Your task to perform on an android device: open a bookmark in the chrome app Image 0: 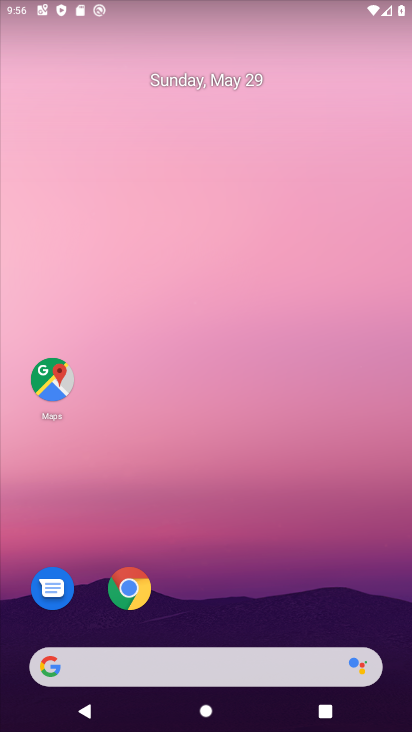
Step 0: drag from (243, 579) to (220, 225)
Your task to perform on an android device: open a bookmark in the chrome app Image 1: 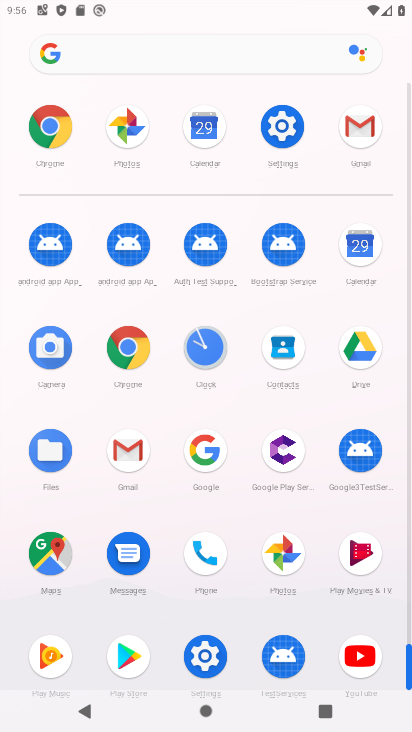
Step 1: click (132, 357)
Your task to perform on an android device: open a bookmark in the chrome app Image 2: 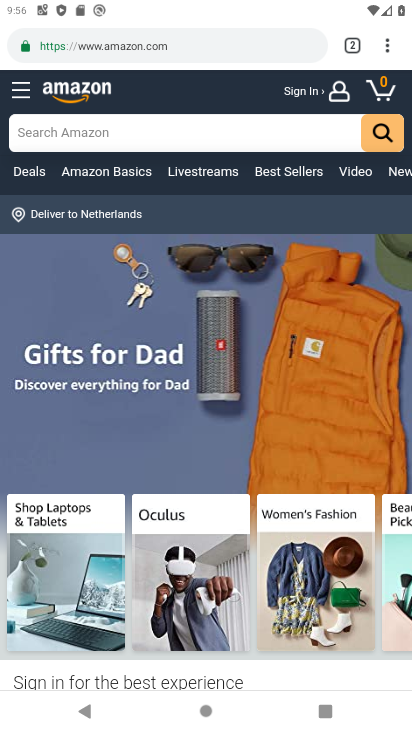
Step 2: click (387, 47)
Your task to perform on an android device: open a bookmark in the chrome app Image 3: 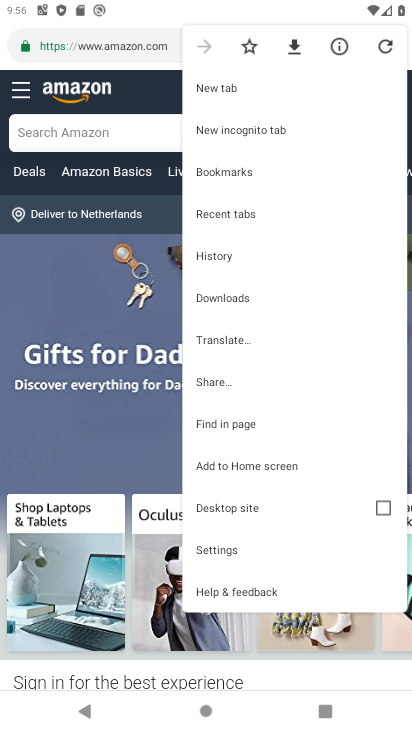
Step 3: click (282, 175)
Your task to perform on an android device: open a bookmark in the chrome app Image 4: 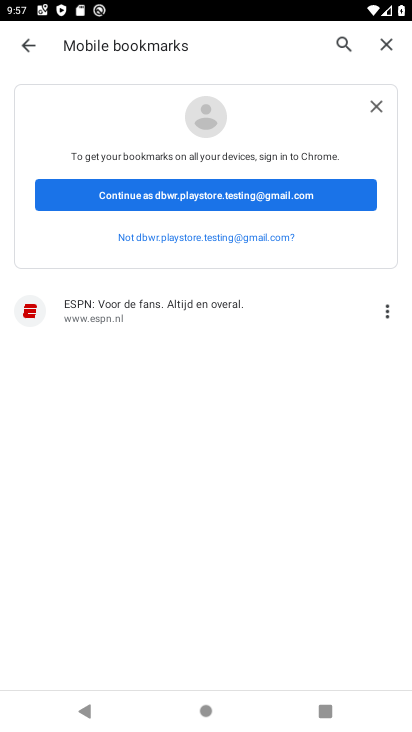
Step 4: click (190, 327)
Your task to perform on an android device: open a bookmark in the chrome app Image 5: 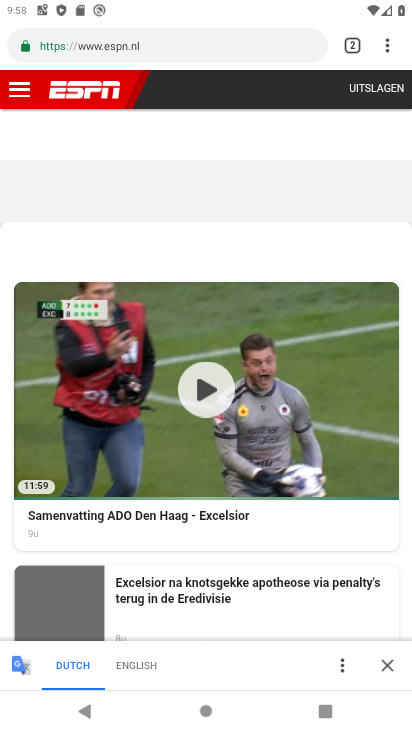
Step 5: task complete